Your task to perform on an android device: search for starred emails in the gmail app Image 0: 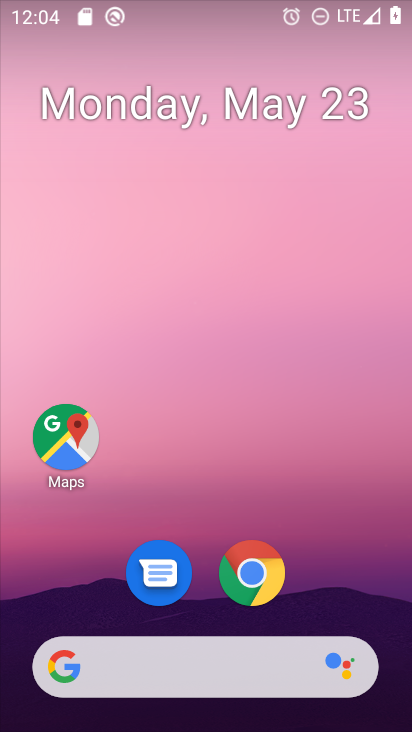
Step 0: drag from (303, 584) to (335, 121)
Your task to perform on an android device: search for starred emails in the gmail app Image 1: 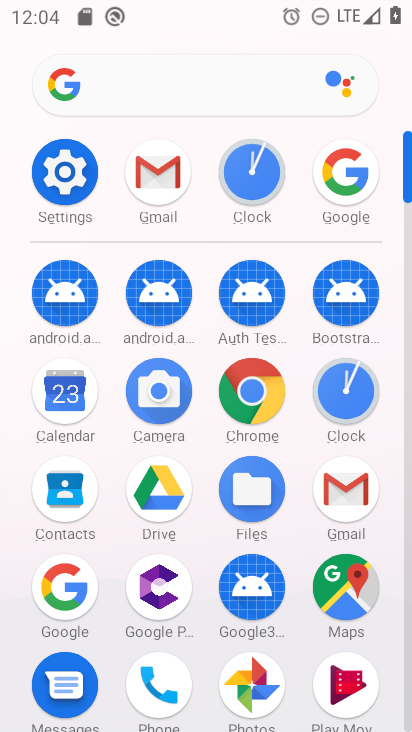
Step 1: click (345, 480)
Your task to perform on an android device: search for starred emails in the gmail app Image 2: 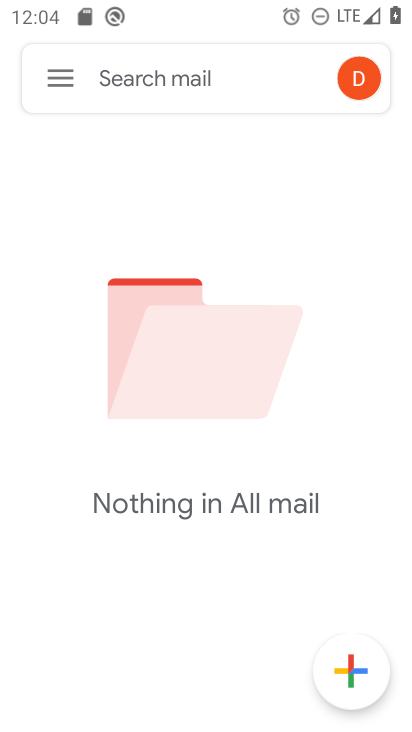
Step 2: click (67, 81)
Your task to perform on an android device: search for starred emails in the gmail app Image 3: 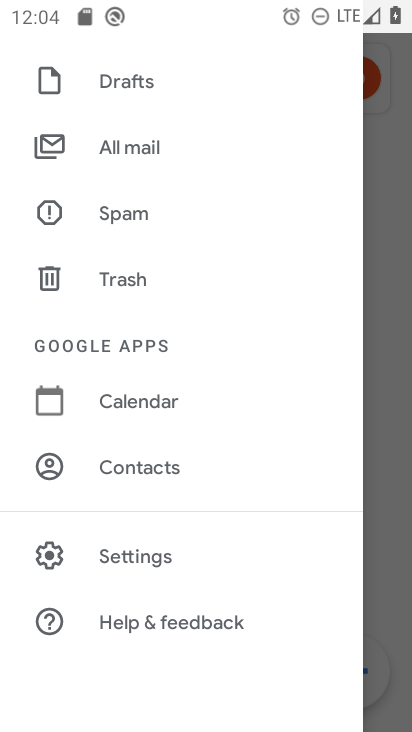
Step 3: drag from (175, 181) to (219, 482)
Your task to perform on an android device: search for starred emails in the gmail app Image 4: 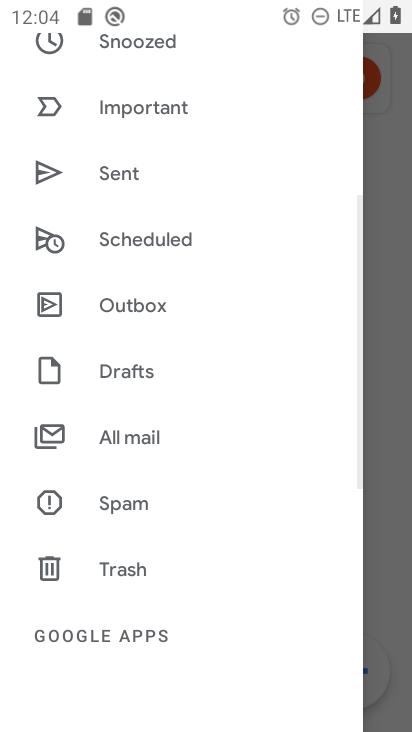
Step 4: drag from (188, 241) to (231, 482)
Your task to perform on an android device: search for starred emails in the gmail app Image 5: 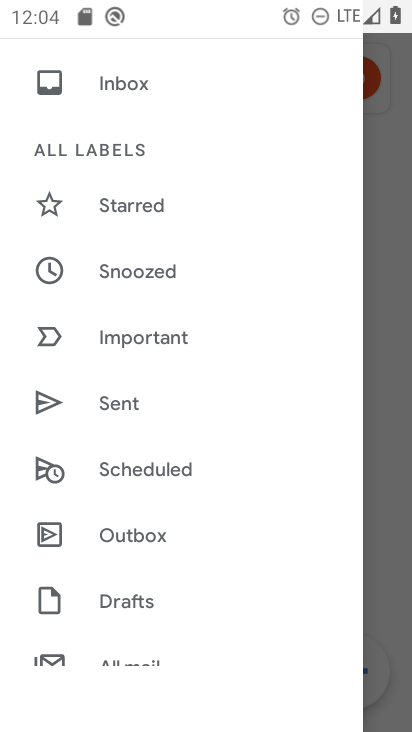
Step 5: click (179, 204)
Your task to perform on an android device: search for starred emails in the gmail app Image 6: 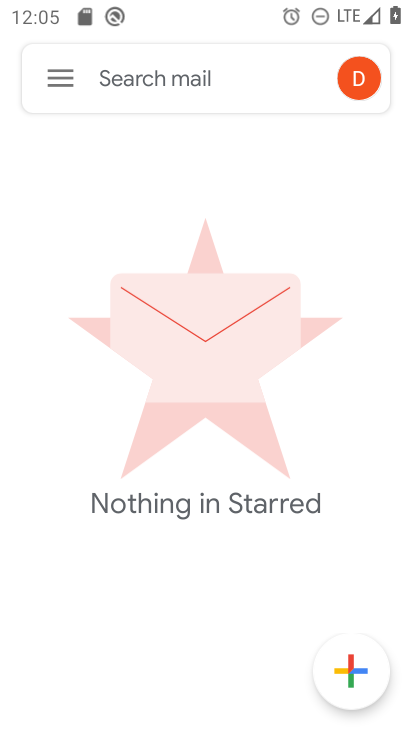
Step 6: task complete